Your task to perform on an android device: What is the news today? Image 0: 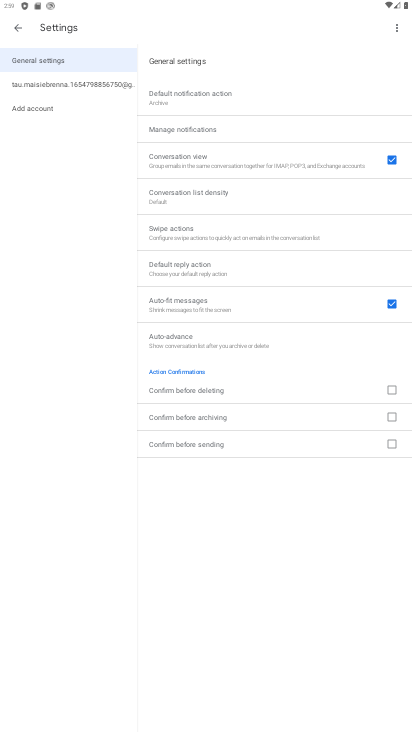
Step 0: press home button
Your task to perform on an android device: What is the news today? Image 1: 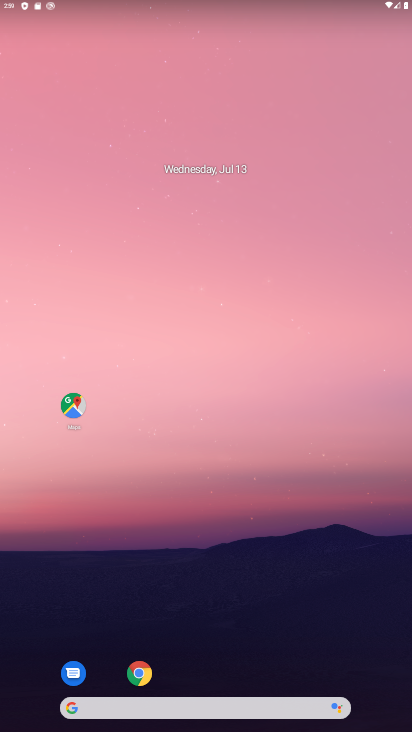
Step 1: task complete